Your task to perform on an android device: see sites visited before in the chrome app Image 0: 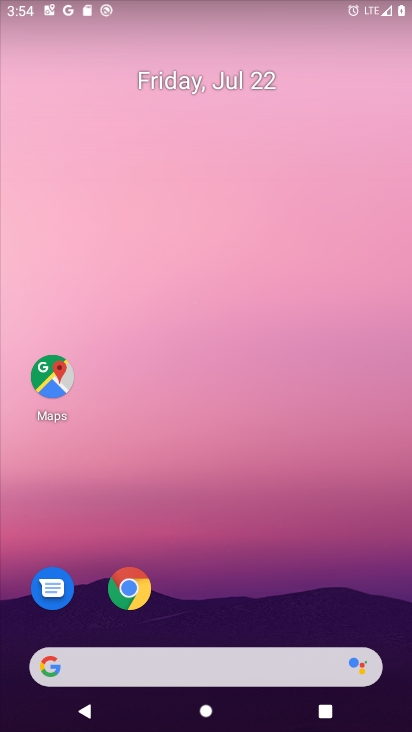
Step 0: drag from (247, 598) to (217, 186)
Your task to perform on an android device: see sites visited before in the chrome app Image 1: 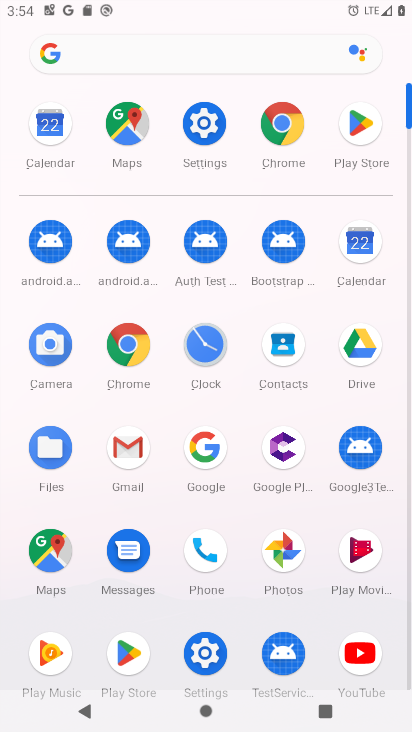
Step 1: click (124, 337)
Your task to perform on an android device: see sites visited before in the chrome app Image 2: 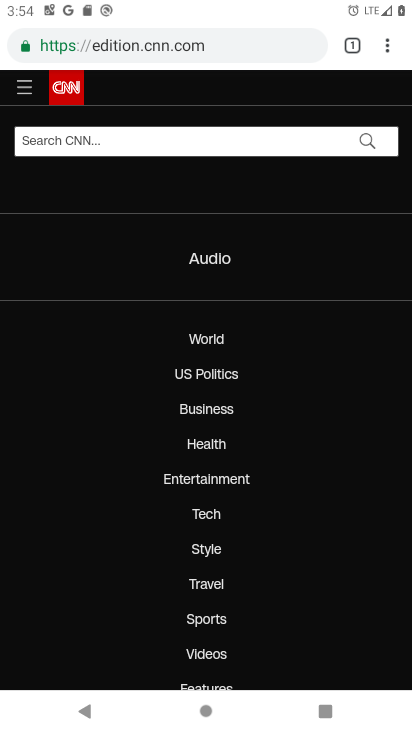
Step 2: drag from (389, 37) to (216, 256)
Your task to perform on an android device: see sites visited before in the chrome app Image 3: 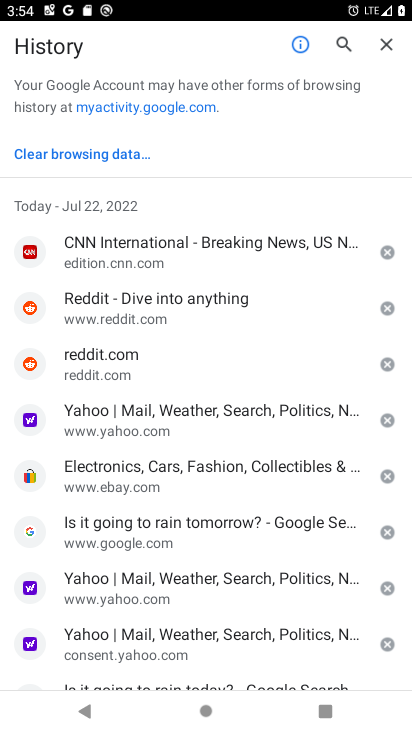
Step 3: click (111, 244)
Your task to perform on an android device: see sites visited before in the chrome app Image 4: 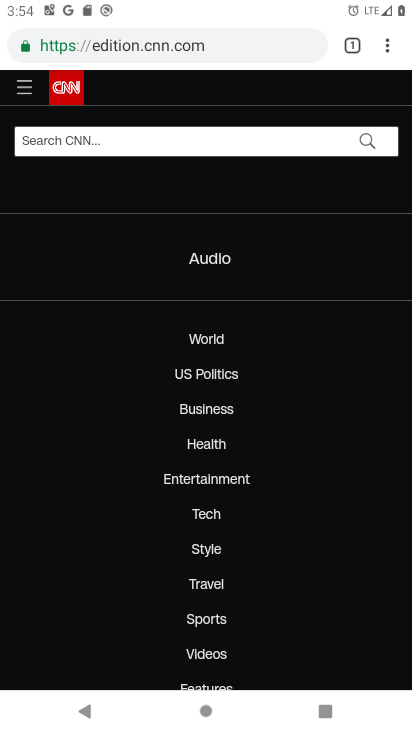
Step 4: task complete